Your task to perform on an android device: install app "Truecaller" Image 0: 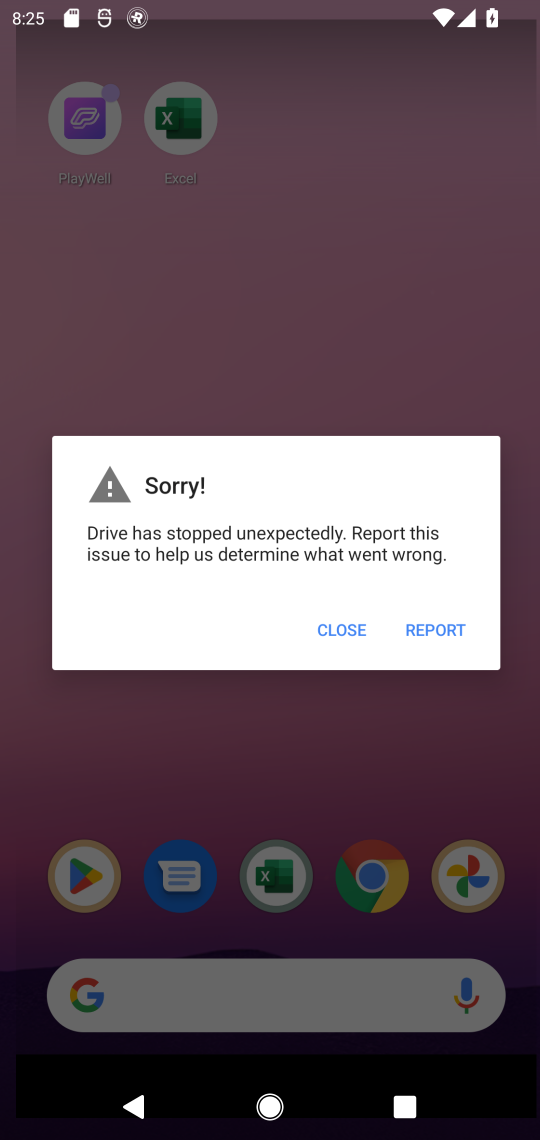
Step 0: press home button
Your task to perform on an android device: install app "Truecaller" Image 1: 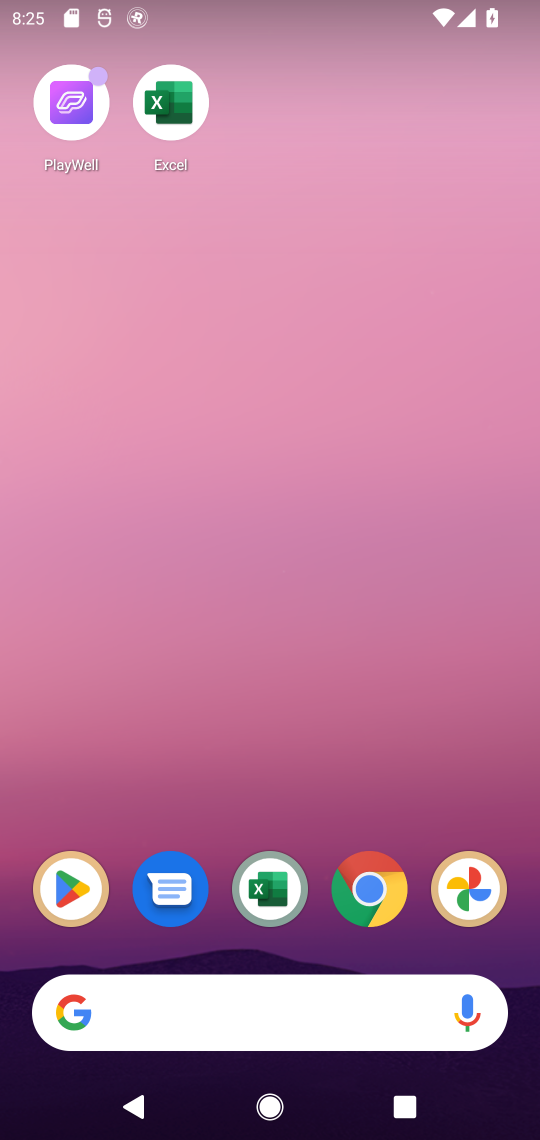
Step 1: click (73, 886)
Your task to perform on an android device: install app "Truecaller" Image 2: 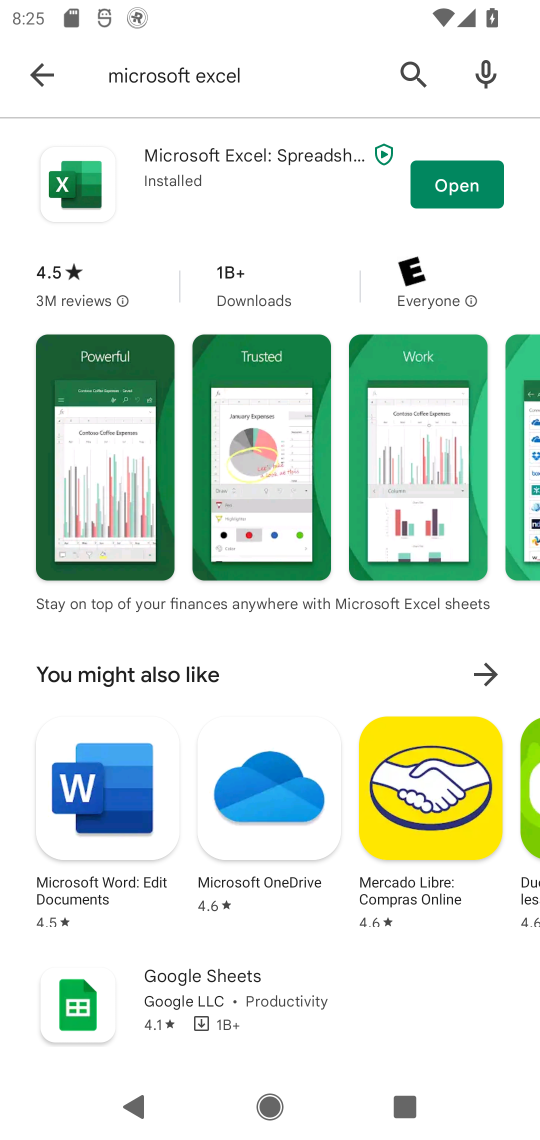
Step 2: click (415, 65)
Your task to perform on an android device: install app "Truecaller" Image 3: 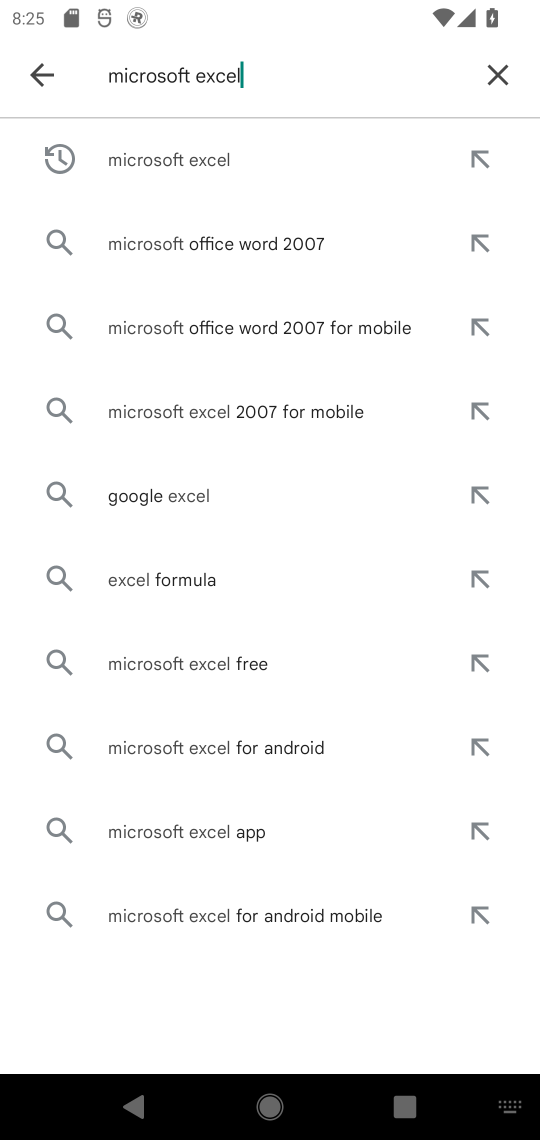
Step 3: click (497, 69)
Your task to perform on an android device: install app "Truecaller" Image 4: 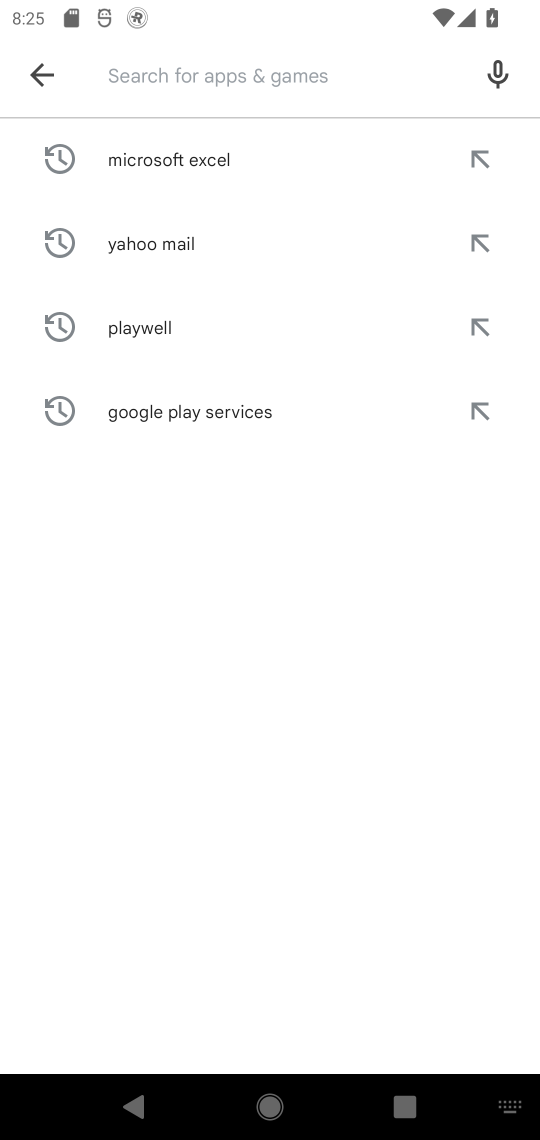
Step 4: type "Truecaller"
Your task to perform on an android device: install app "Truecaller" Image 5: 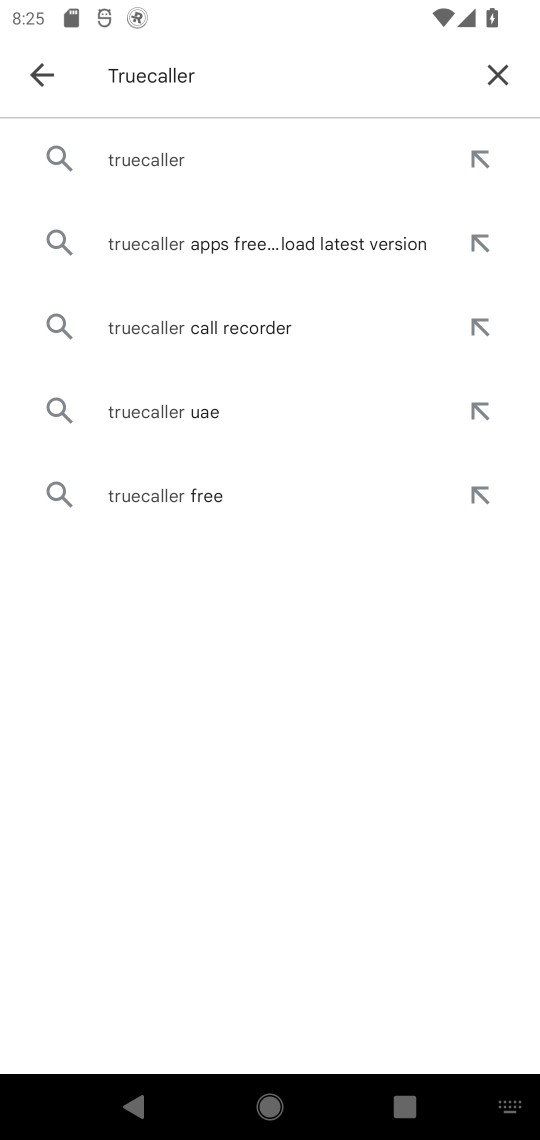
Step 5: click (157, 154)
Your task to perform on an android device: install app "Truecaller" Image 6: 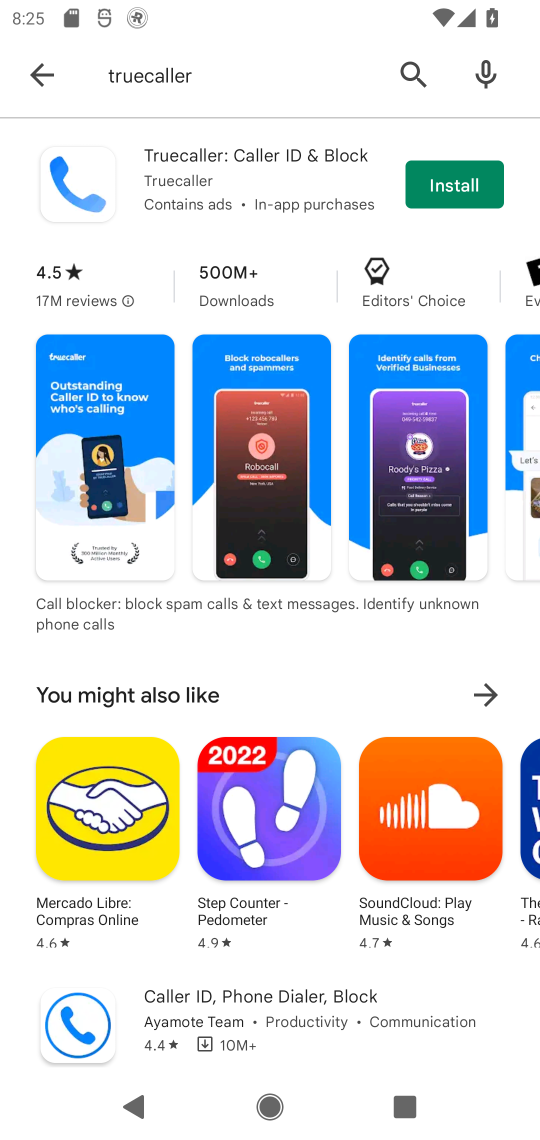
Step 6: click (441, 185)
Your task to perform on an android device: install app "Truecaller" Image 7: 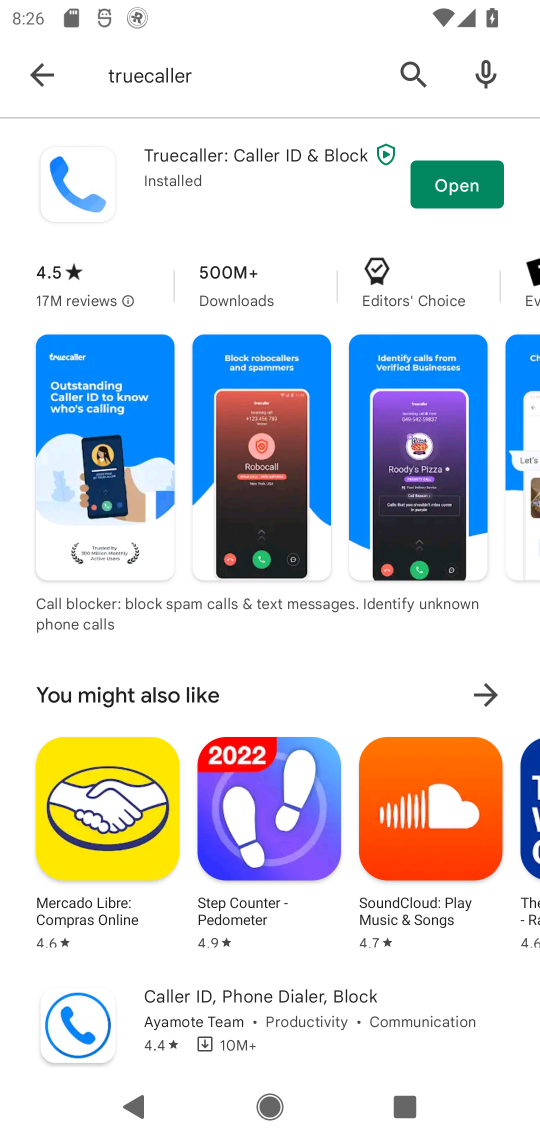
Step 7: task complete